Your task to perform on an android device: Open Google Chrome Image 0: 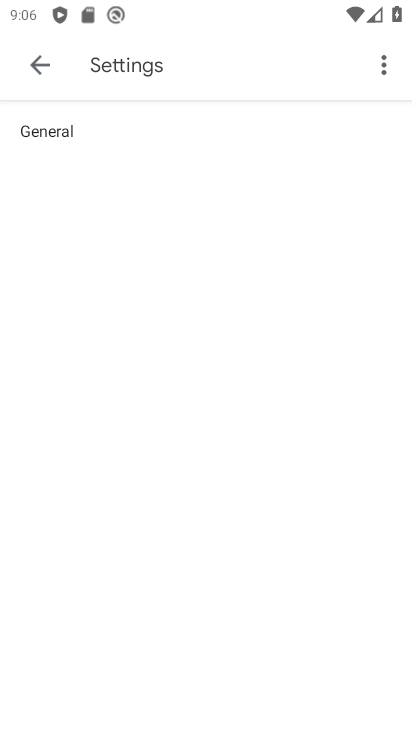
Step 0: press home button
Your task to perform on an android device: Open Google Chrome Image 1: 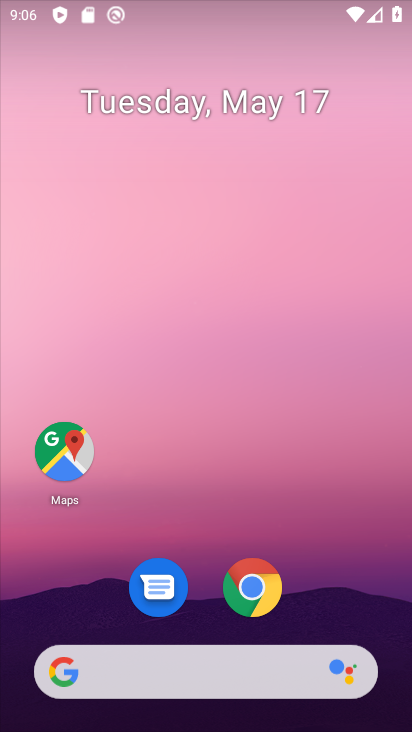
Step 1: drag from (190, 519) to (180, 182)
Your task to perform on an android device: Open Google Chrome Image 2: 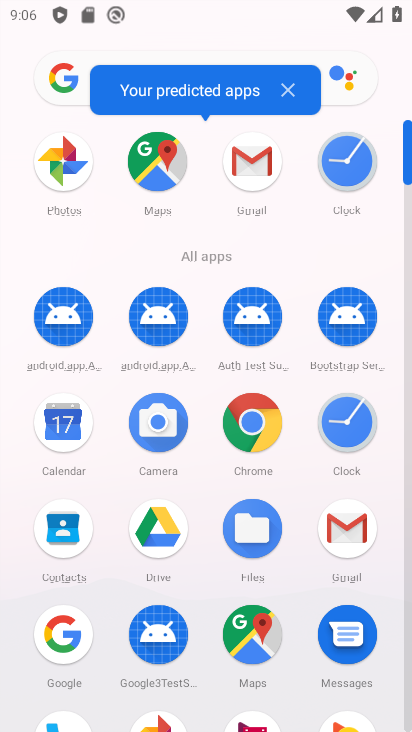
Step 2: click (245, 441)
Your task to perform on an android device: Open Google Chrome Image 3: 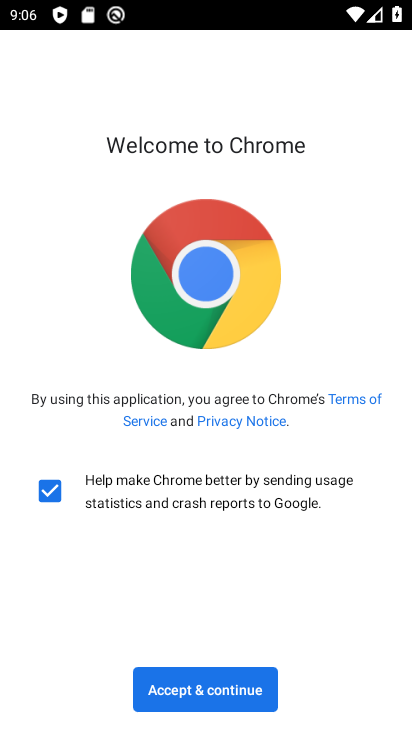
Step 3: click (234, 688)
Your task to perform on an android device: Open Google Chrome Image 4: 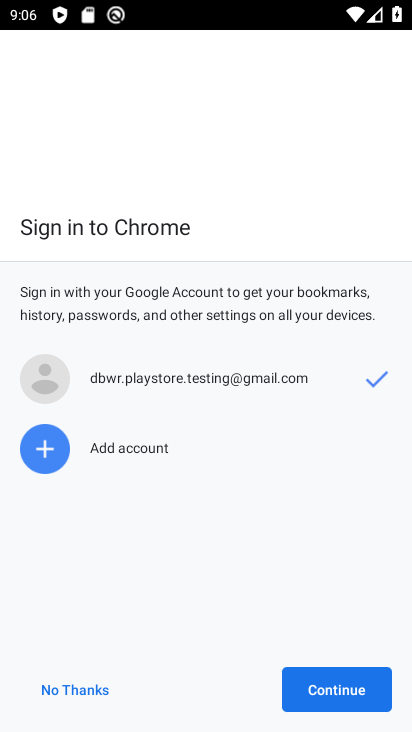
Step 4: click (342, 686)
Your task to perform on an android device: Open Google Chrome Image 5: 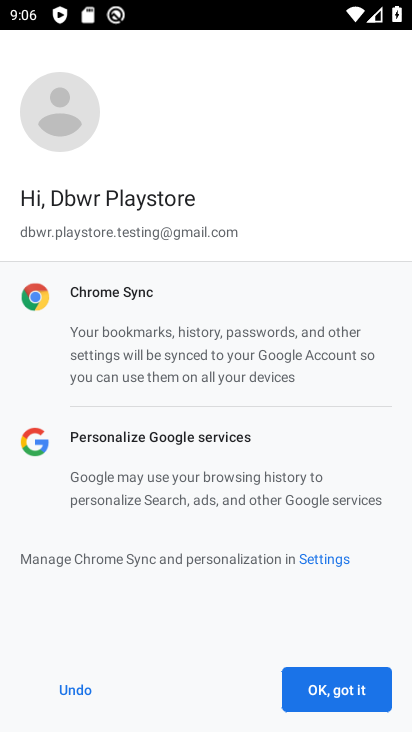
Step 5: click (367, 681)
Your task to perform on an android device: Open Google Chrome Image 6: 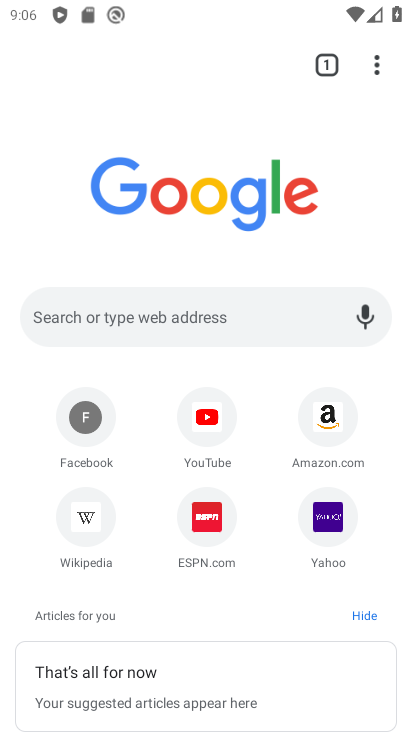
Step 6: task complete